Your task to perform on an android device: When is my next appointment? Image 0: 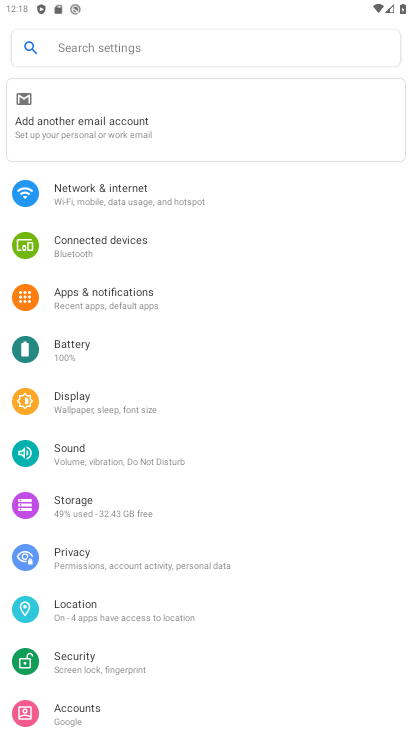
Step 0: press home button
Your task to perform on an android device: When is my next appointment? Image 1: 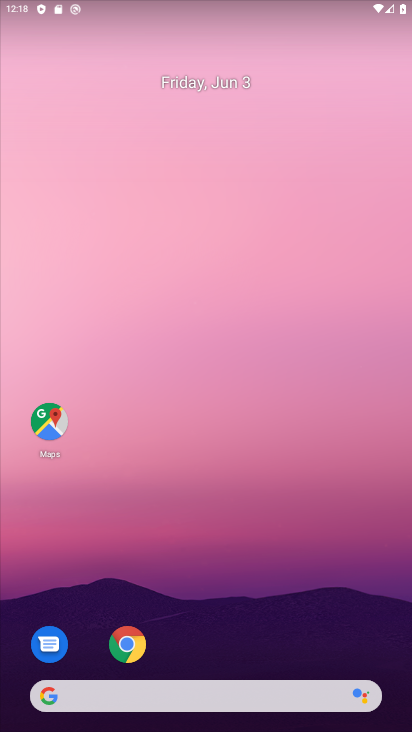
Step 1: drag from (203, 663) to (182, 50)
Your task to perform on an android device: When is my next appointment? Image 2: 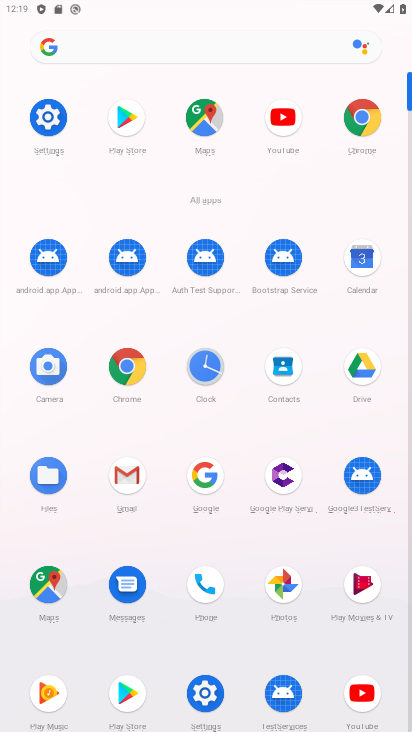
Step 2: click (366, 257)
Your task to perform on an android device: When is my next appointment? Image 3: 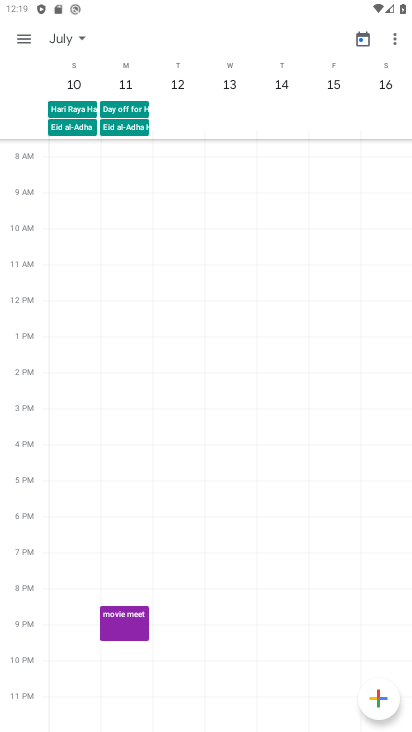
Step 3: click (80, 39)
Your task to perform on an android device: When is my next appointment? Image 4: 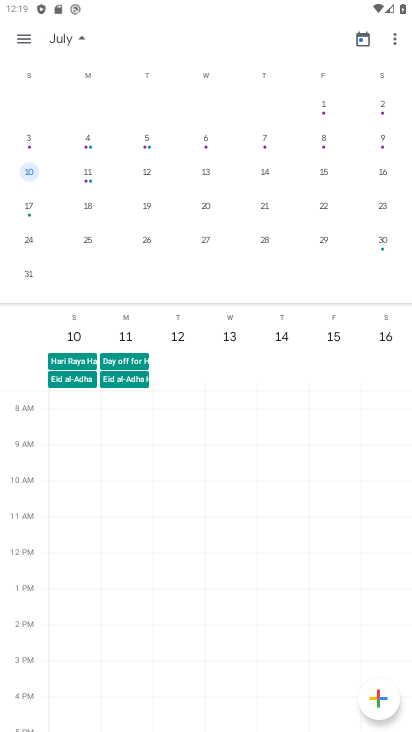
Step 4: drag from (28, 186) to (333, 179)
Your task to perform on an android device: When is my next appointment? Image 5: 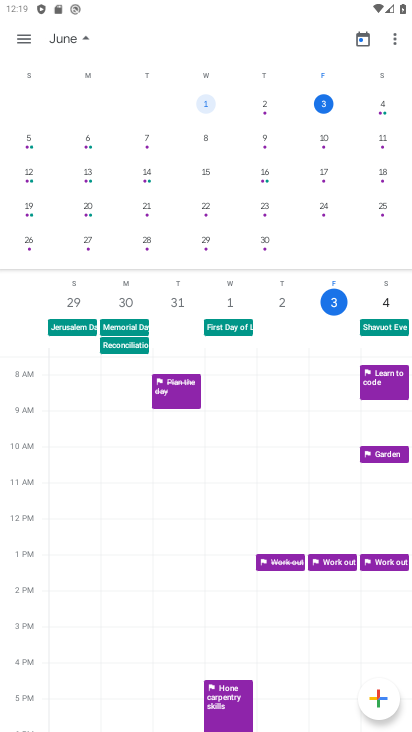
Step 5: click (323, 106)
Your task to perform on an android device: When is my next appointment? Image 6: 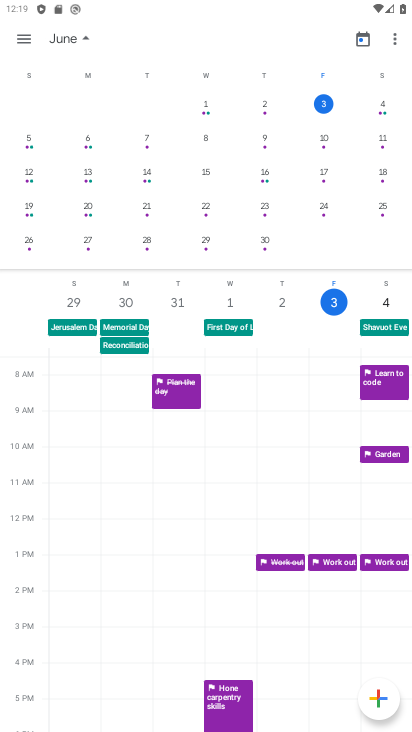
Step 6: click (323, 104)
Your task to perform on an android device: When is my next appointment? Image 7: 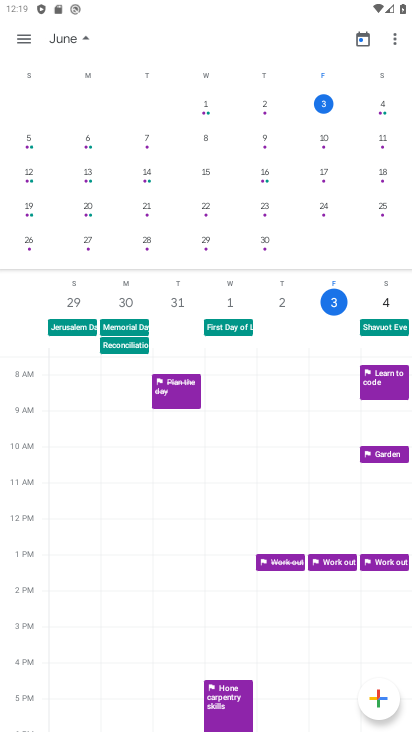
Step 7: click (323, 103)
Your task to perform on an android device: When is my next appointment? Image 8: 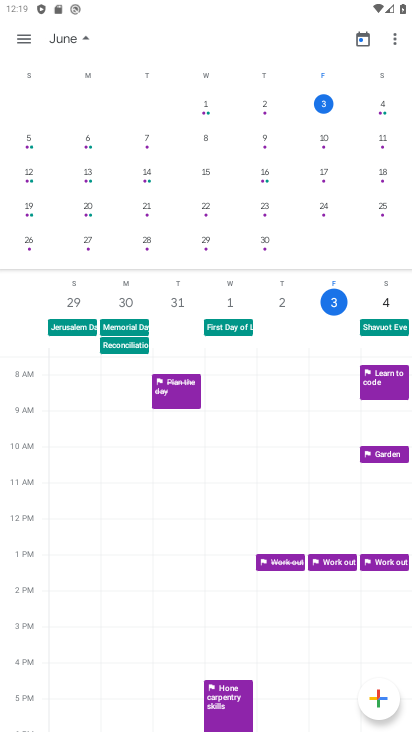
Step 8: click (323, 102)
Your task to perform on an android device: When is my next appointment? Image 9: 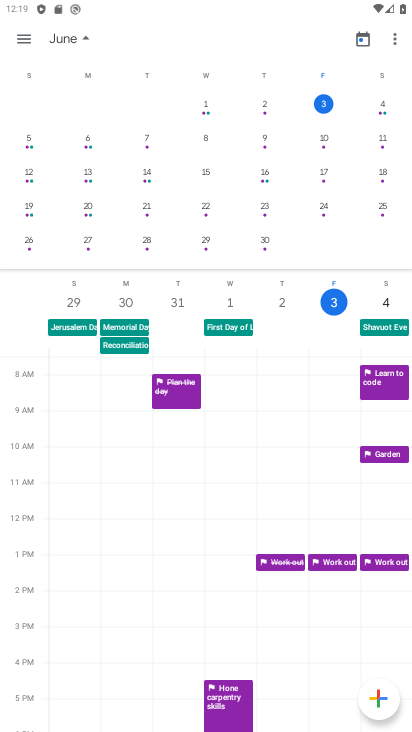
Step 9: click (323, 102)
Your task to perform on an android device: When is my next appointment? Image 10: 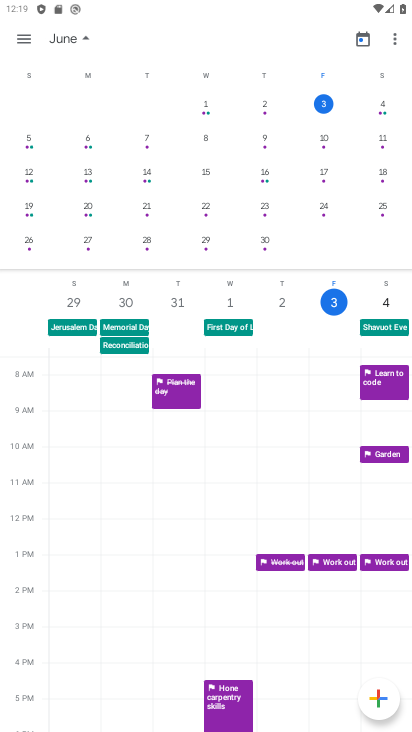
Step 10: click (88, 33)
Your task to perform on an android device: When is my next appointment? Image 11: 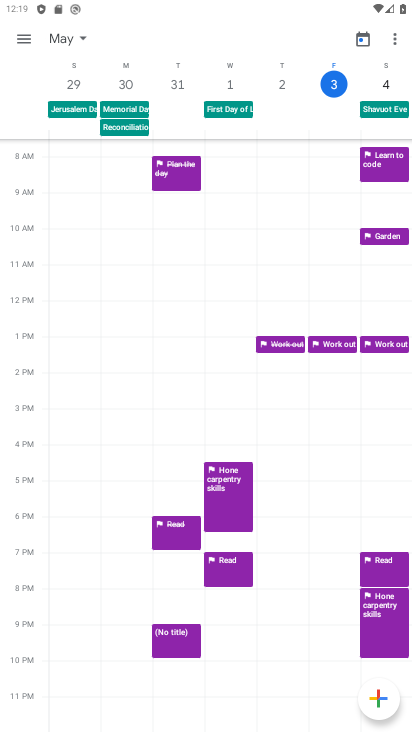
Step 11: click (330, 82)
Your task to perform on an android device: When is my next appointment? Image 12: 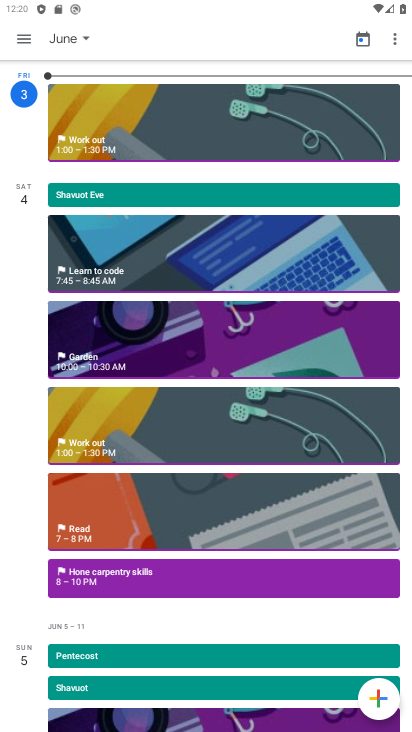
Step 12: task complete